Your task to perform on an android device: turn on data saver in the chrome app Image 0: 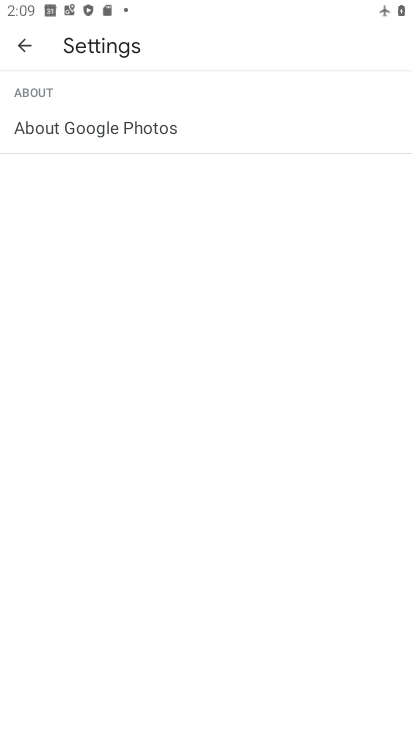
Step 0: press home button
Your task to perform on an android device: turn on data saver in the chrome app Image 1: 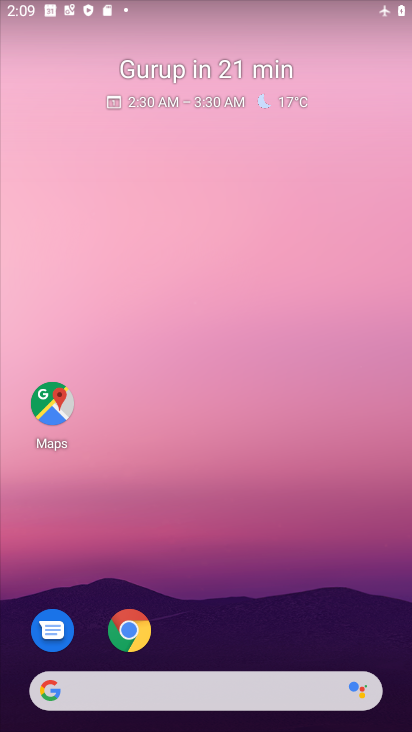
Step 1: click (134, 629)
Your task to perform on an android device: turn on data saver in the chrome app Image 2: 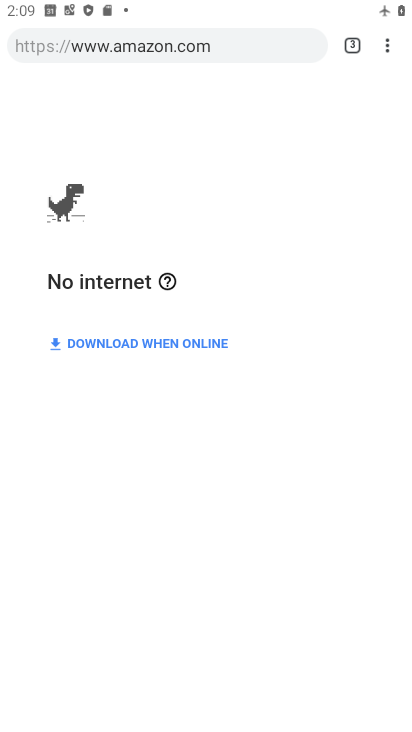
Step 2: click (384, 42)
Your task to perform on an android device: turn on data saver in the chrome app Image 3: 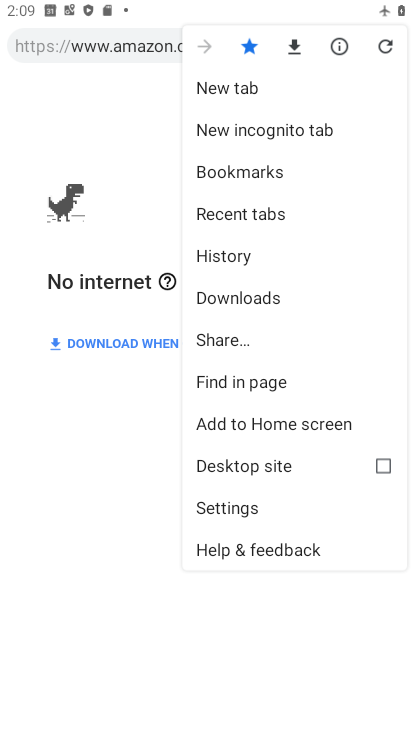
Step 3: click (249, 504)
Your task to perform on an android device: turn on data saver in the chrome app Image 4: 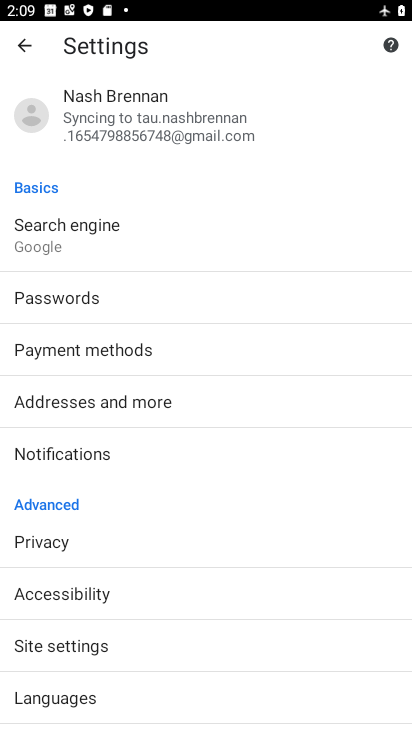
Step 4: drag from (284, 624) to (310, 296)
Your task to perform on an android device: turn on data saver in the chrome app Image 5: 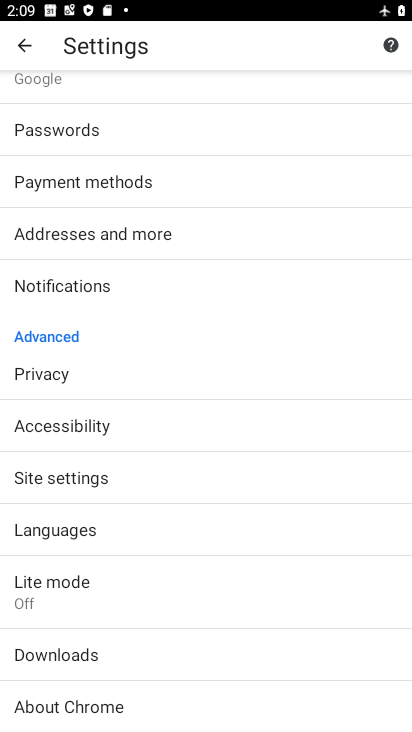
Step 5: click (110, 584)
Your task to perform on an android device: turn on data saver in the chrome app Image 6: 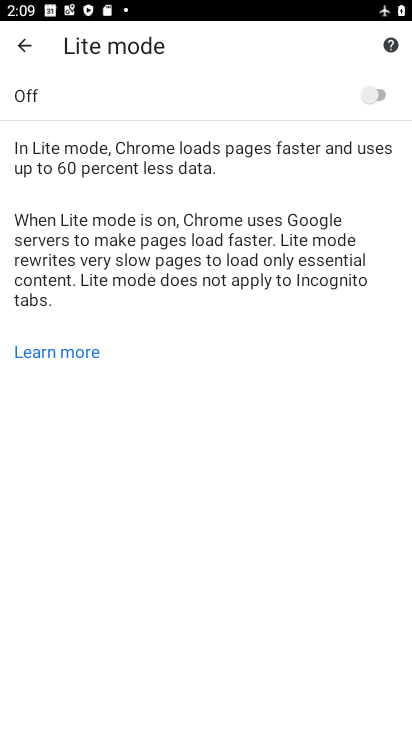
Step 6: click (375, 89)
Your task to perform on an android device: turn on data saver in the chrome app Image 7: 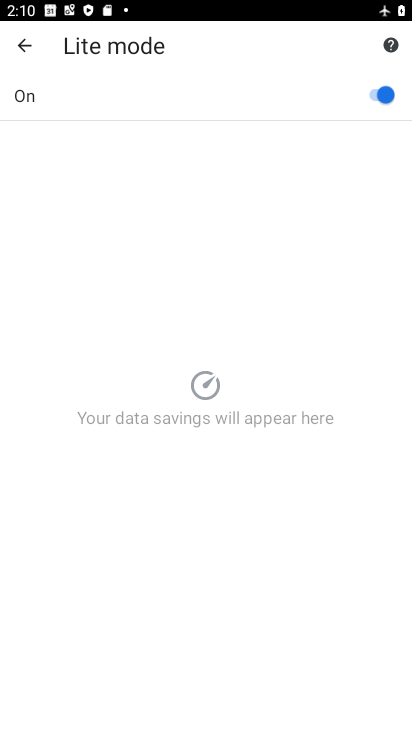
Step 7: task complete